Your task to perform on an android device: Show me popular games on the Play Store Image 0: 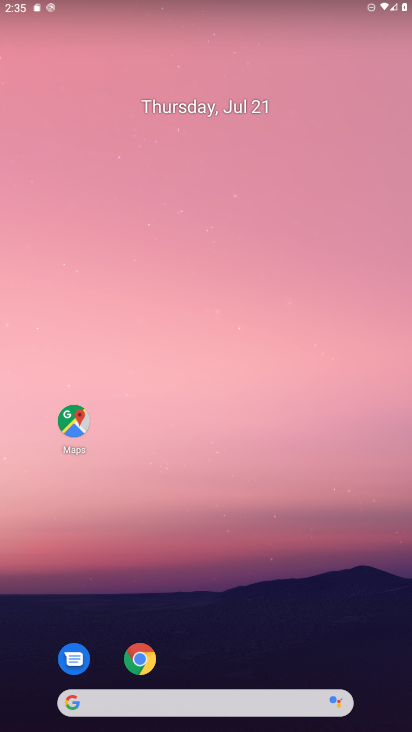
Step 0: drag from (5, 725) to (298, 92)
Your task to perform on an android device: Show me popular games on the Play Store Image 1: 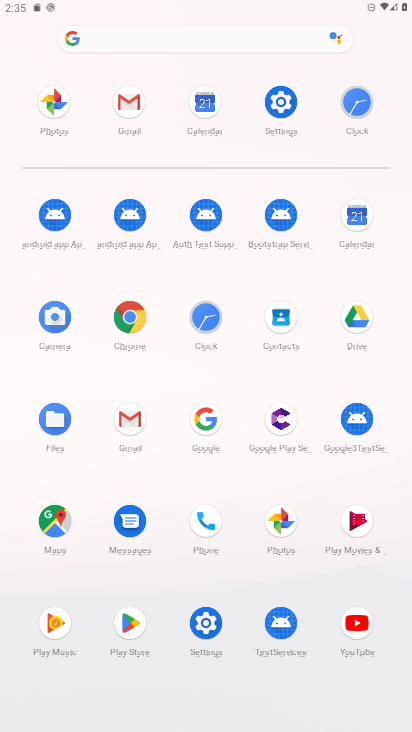
Step 1: click (132, 624)
Your task to perform on an android device: Show me popular games on the Play Store Image 2: 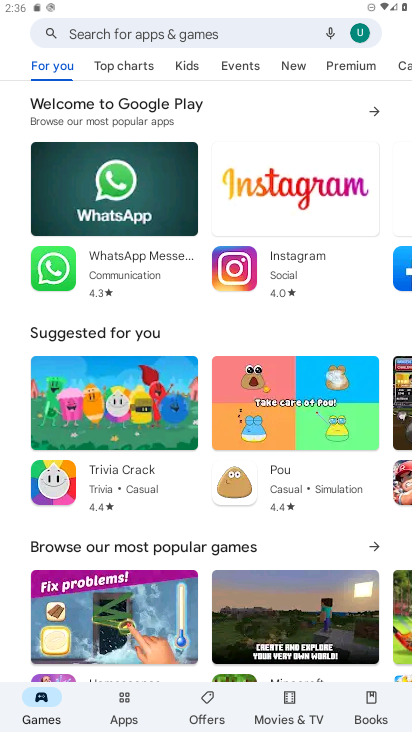
Step 2: task complete